Your task to perform on an android device: find photos in the google photos app Image 0: 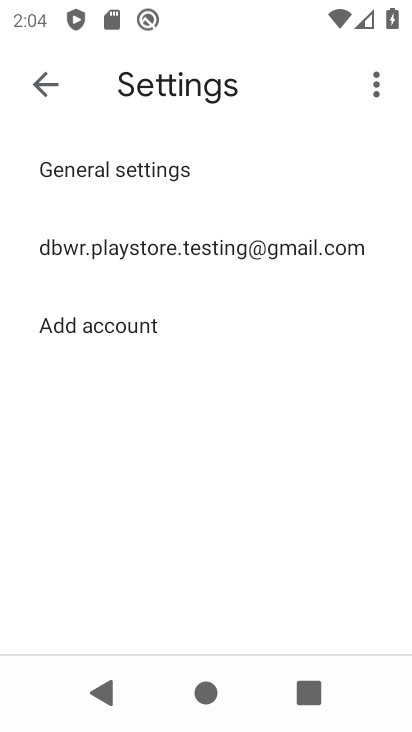
Step 0: press home button
Your task to perform on an android device: find photos in the google photos app Image 1: 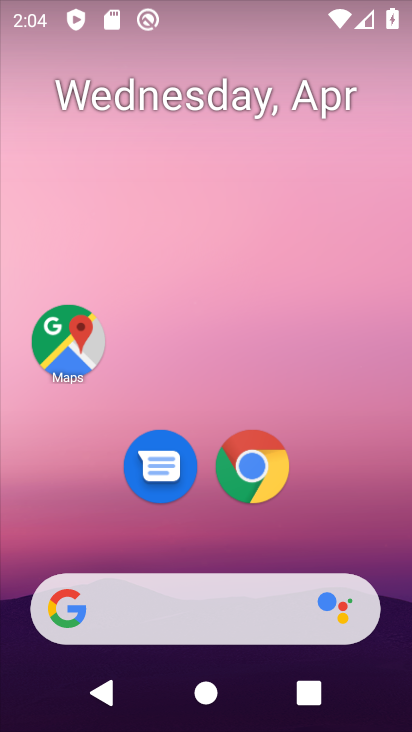
Step 1: drag from (238, 495) to (252, 191)
Your task to perform on an android device: find photos in the google photos app Image 2: 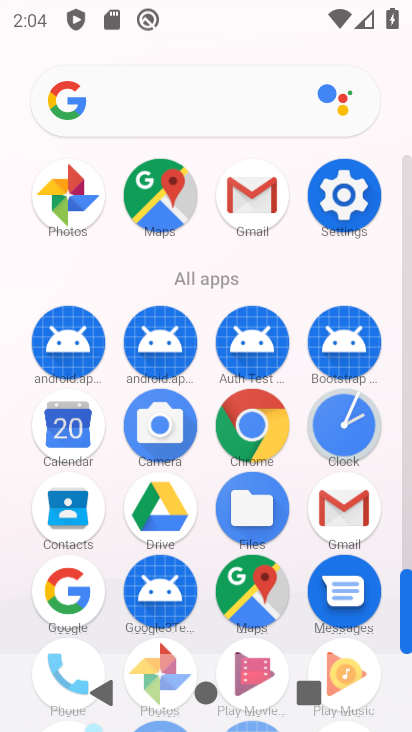
Step 2: drag from (222, 601) to (271, 255)
Your task to perform on an android device: find photos in the google photos app Image 3: 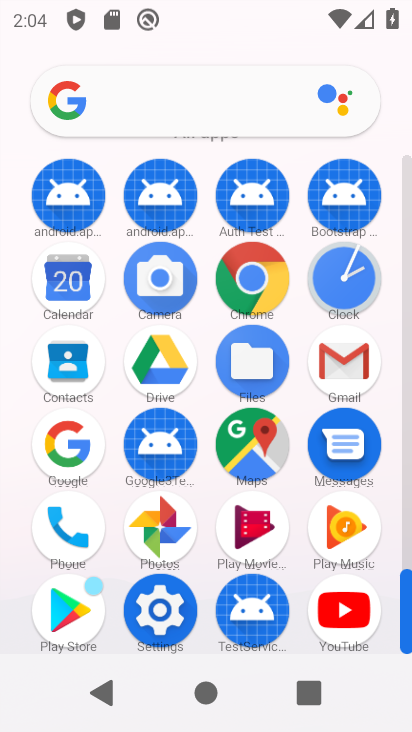
Step 3: click (157, 522)
Your task to perform on an android device: find photos in the google photos app Image 4: 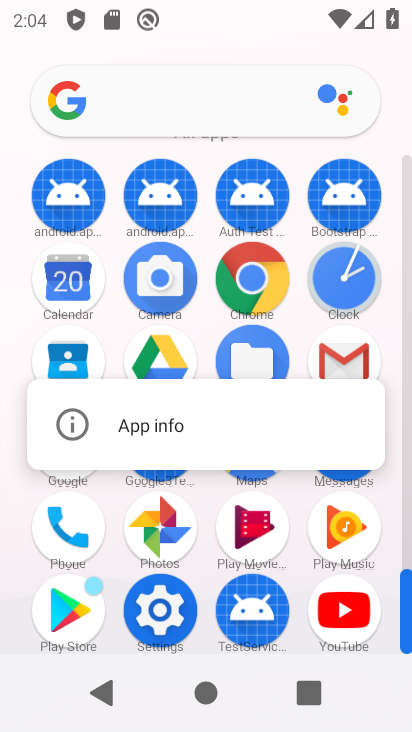
Step 4: click (158, 523)
Your task to perform on an android device: find photos in the google photos app Image 5: 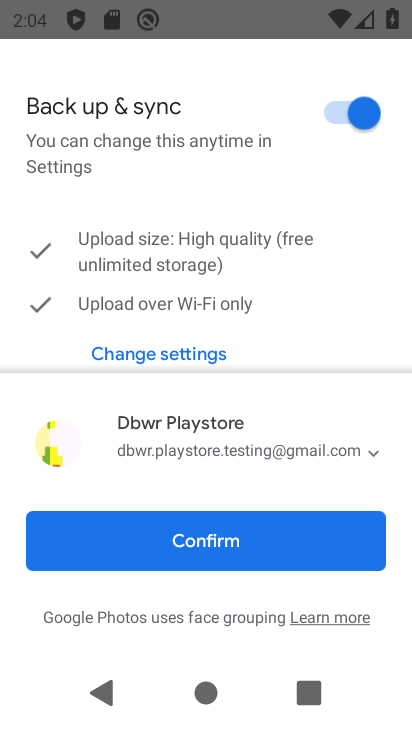
Step 5: click (173, 535)
Your task to perform on an android device: find photos in the google photos app Image 6: 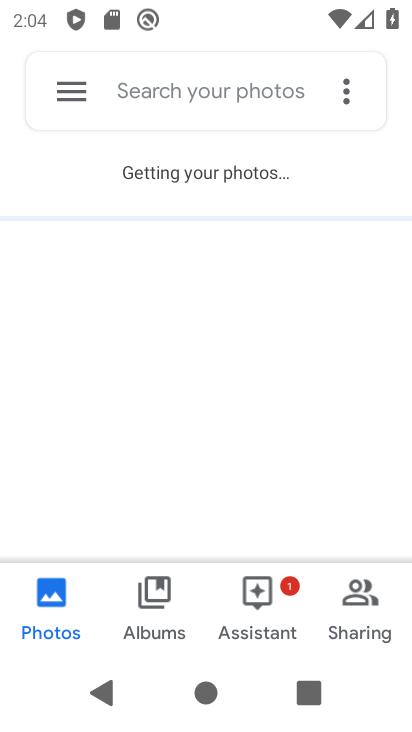
Step 6: click (154, 586)
Your task to perform on an android device: find photos in the google photos app Image 7: 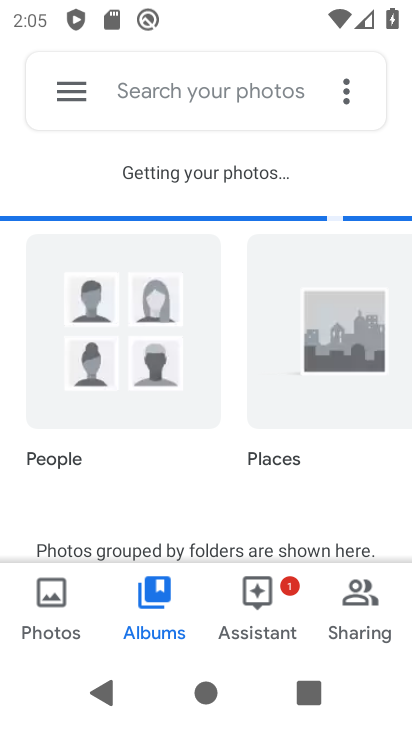
Step 7: drag from (219, 492) to (250, 263)
Your task to perform on an android device: find photos in the google photos app Image 8: 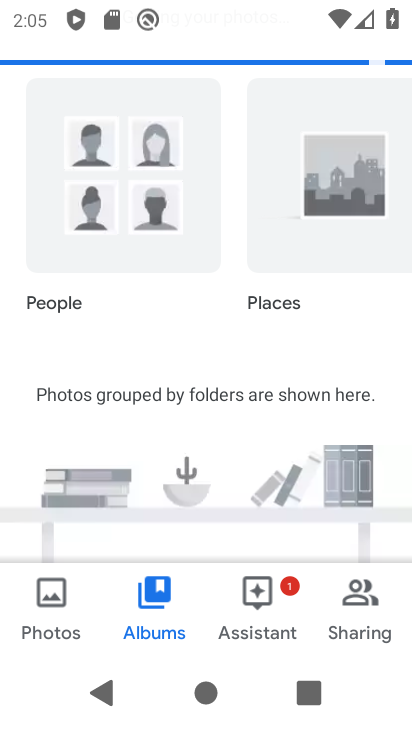
Step 8: click (64, 608)
Your task to perform on an android device: find photos in the google photos app Image 9: 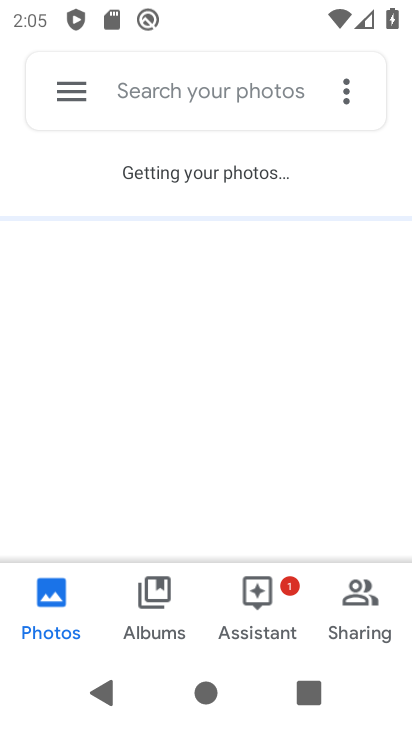
Step 9: drag from (185, 328) to (116, 502)
Your task to perform on an android device: find photos in the google photos app Image 10: 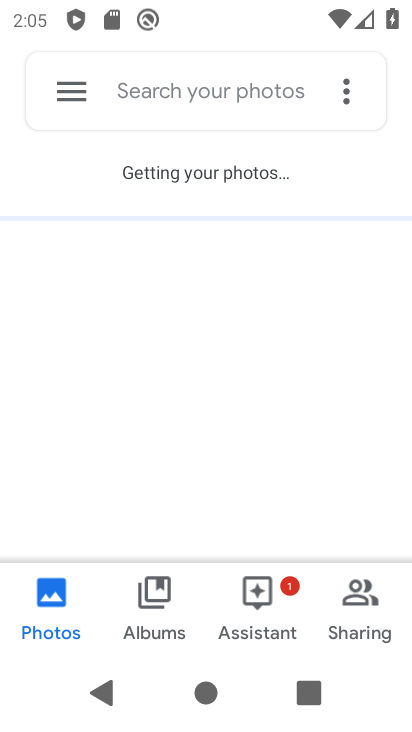
Step 10: click (143, 613)
Your task to perform on an android device: find photos in the google photos app Image 11: 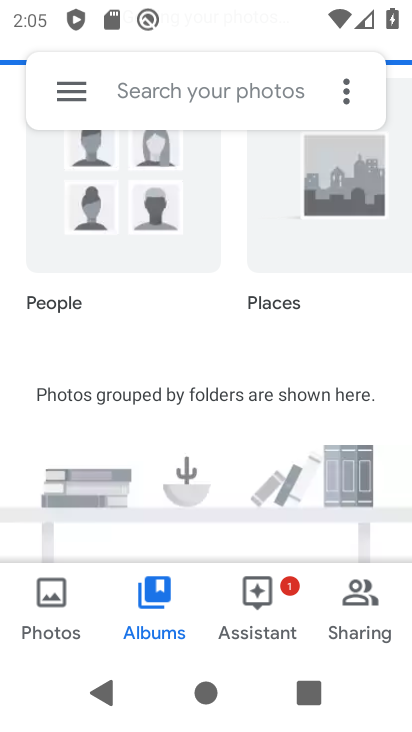
Step 11: drag from (161, 347) to (111, 527)
Your task to perform on an android device: find photos in the google photos app Image 12: 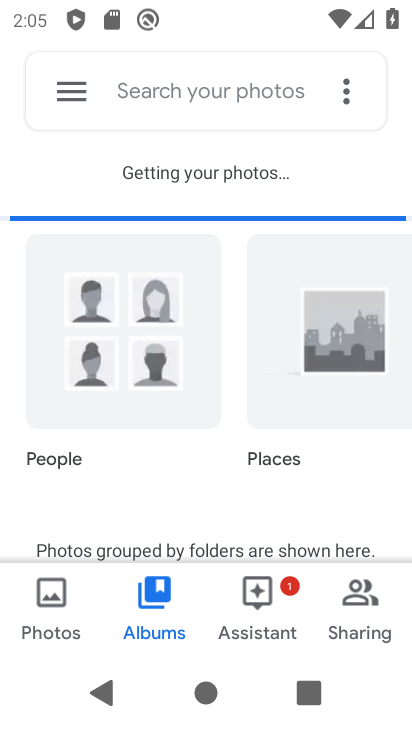
Step 12: drag from (205, 298) to (7, 323)
Your task to perform on an android device: find photos in the google photos app Image 13: 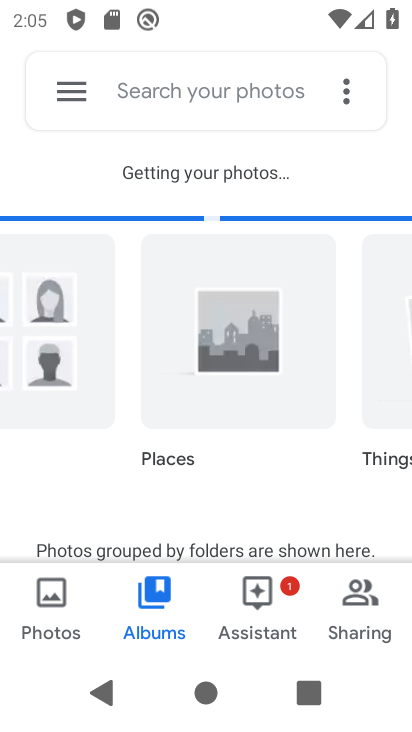
Step 13: drag from (50, 436) to (2, 457)
Your task to perform on an android device: find photos in the google photos app Image 14: 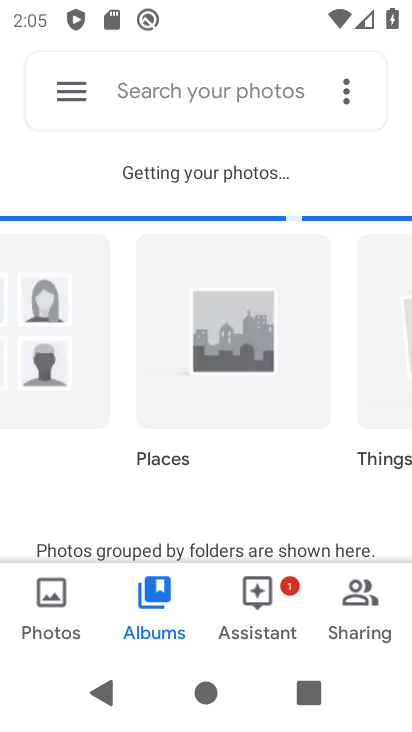
Step 14: drag from (136, 472) to (168, 186)
Your task to perform on an android device: find photos in the google photos app Image 15: 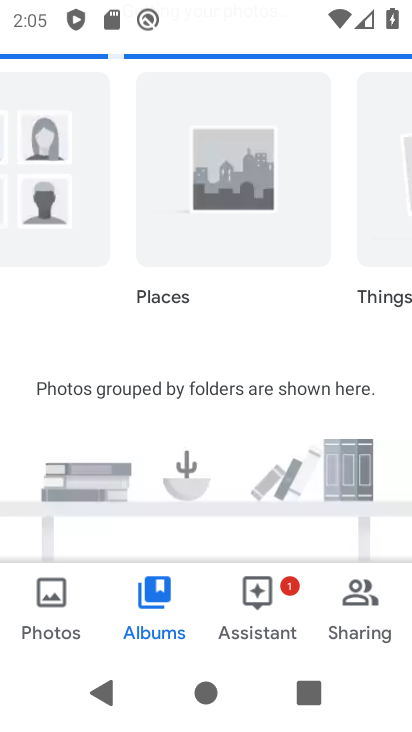
Step 15: click (58, 595)
Your task to perform on an android device: find photos in the google photos app Image 16: 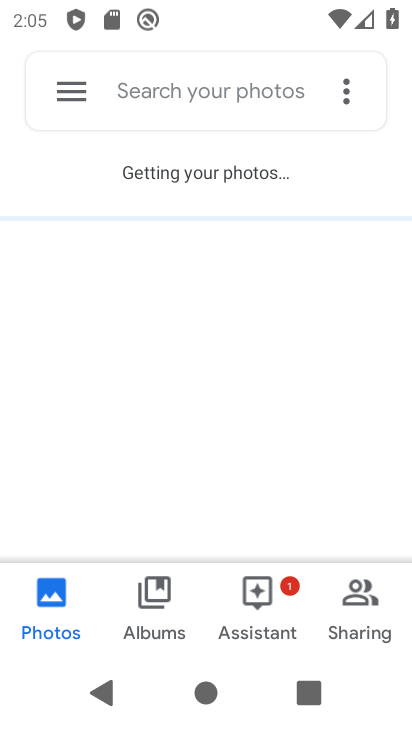
Step 16: click (50, 584)
Your task to perform on an android device: find photos in the google photos app Image 17: 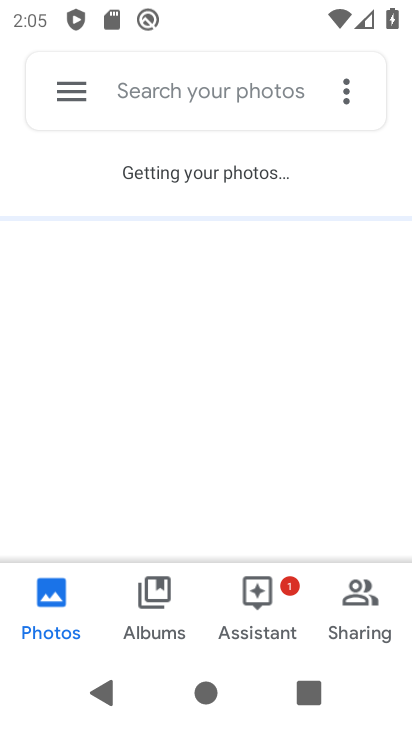
Step 17: click (169, 385)
Your task to perform on an android device: find photos in the google photos app Image 18: 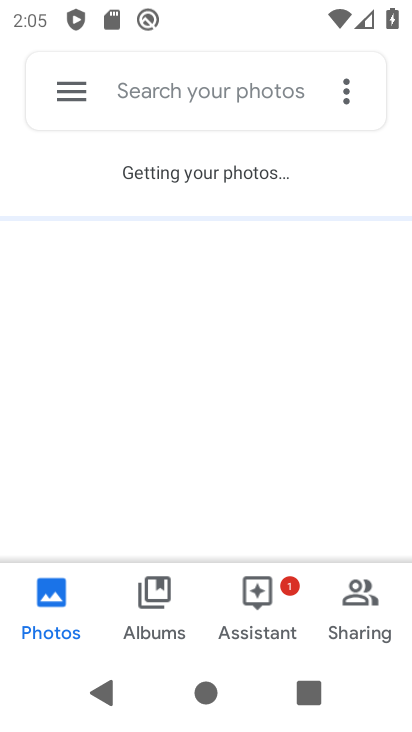
Step 18: drag from (191, 362) to (170, 505)
Your task to perform on an android device: find photos in the google photos app Image 19: 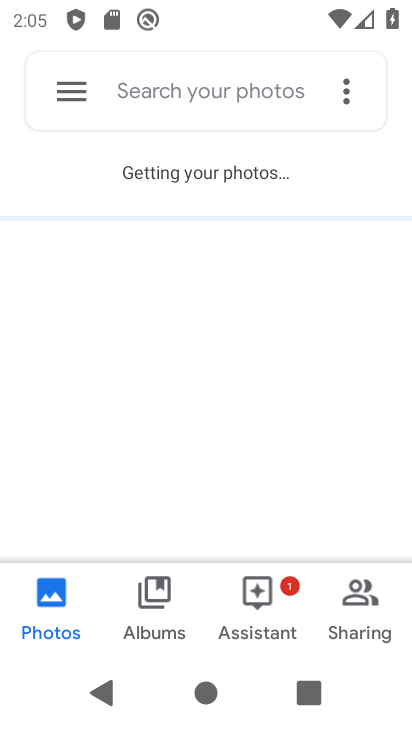
Step 19: click (156, 595)
Your task to perform on an android device: find photos in the google photos app Image 20: 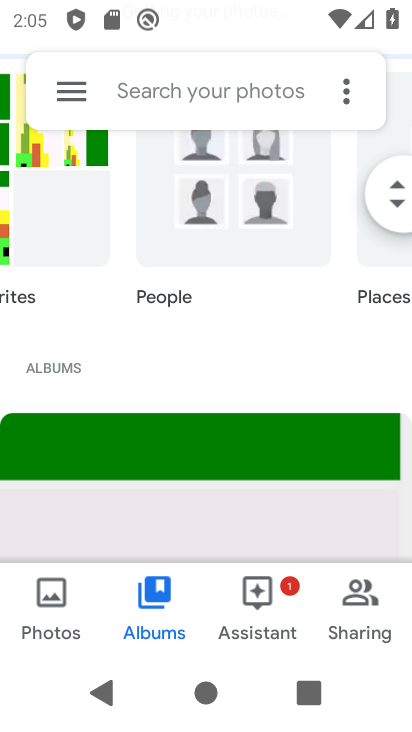
Step 20: drag from (105, 302) to (348, 251)
Your task to perform on an android device: find photos in the google photos app Image 21: 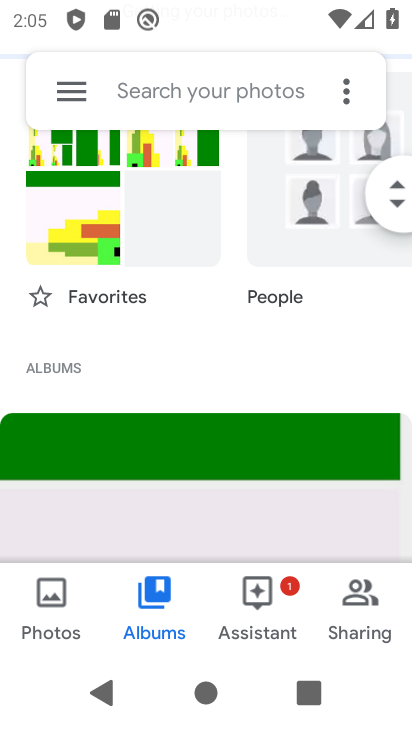
Step 21: click (66, 159)
Your task to perform on an android device: find photos in the google photos app Image 22: 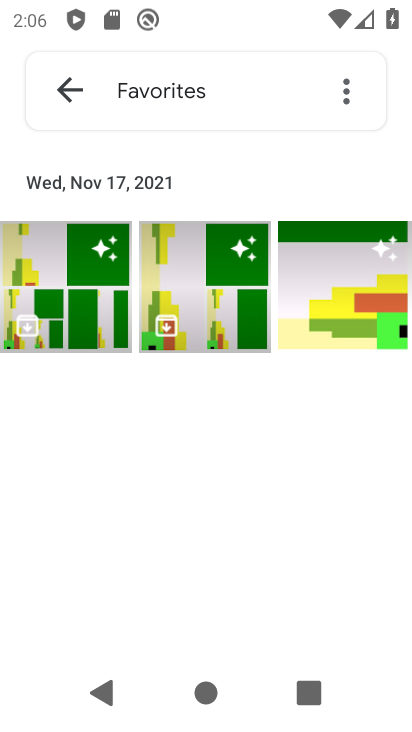
Step 22: task complete